Your task to perform on an android device: star an email in the gmail app Image 0: 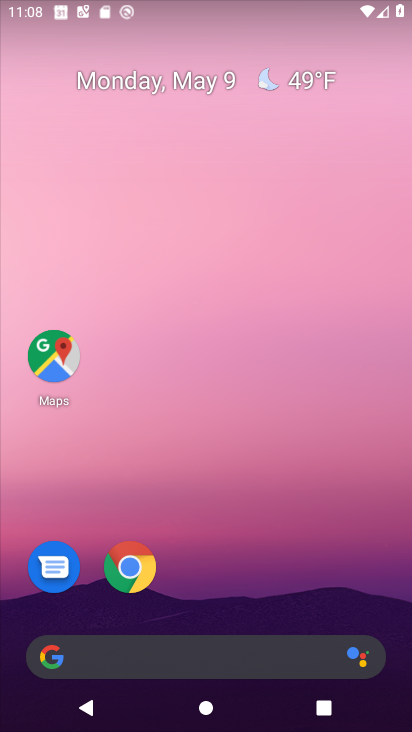
Step 0: drag from (189, 632) to (191, 69)
Your task to perform on an android device: star an email in the gmail app Image 1: 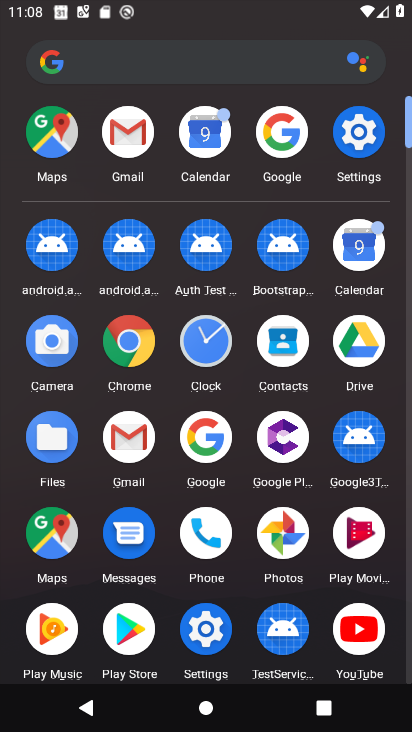
Step 1: click (131, 158)
Your task to perform on an android device: star an email in the gmail app Image 2: 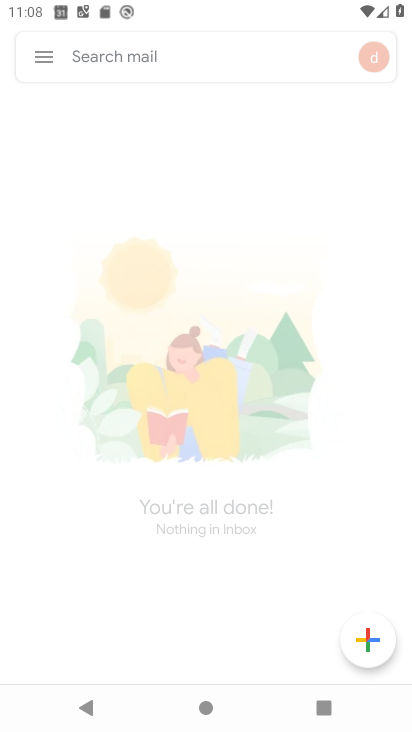
Step 2: click (41, 56)
Your task to perform on an android device: star an email in the gmail app Image 3: 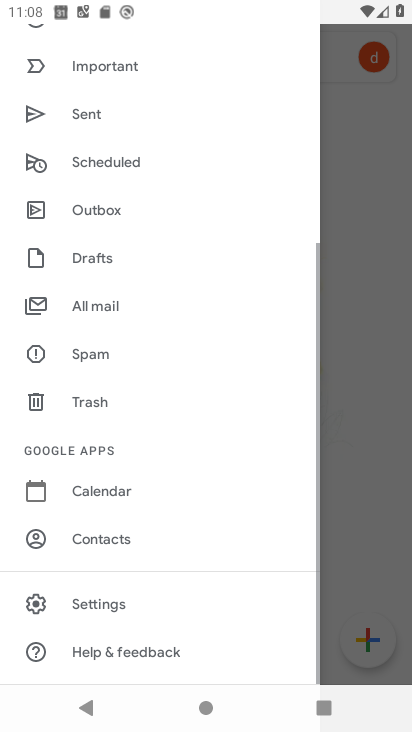
Step 3: drag from (112, 66) to (174, 452)
Your task to perform on an android device: star an email in the gmail app Image 4: 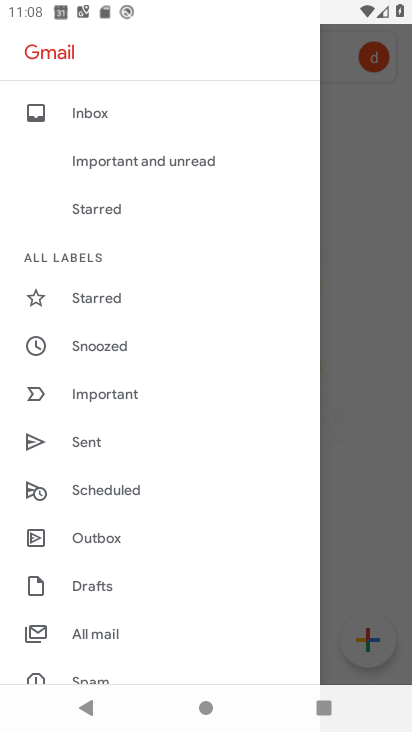
Step 4: click (100, 100)
Your task to perform on an android device: star an email in the gmail app Image 5: 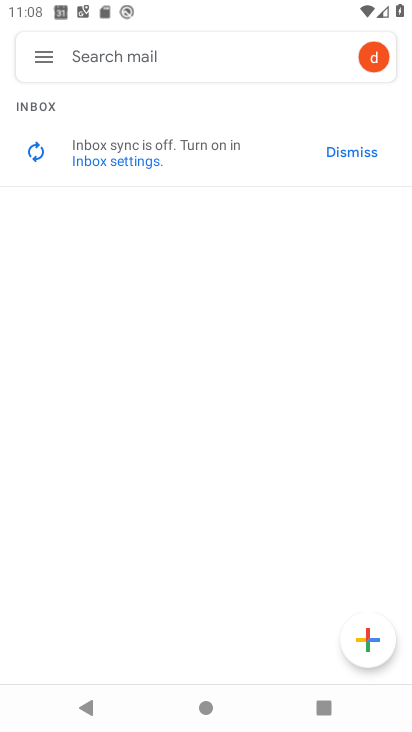
Step 5: task complete